Your task to perform on an android device: check storage Image 0: 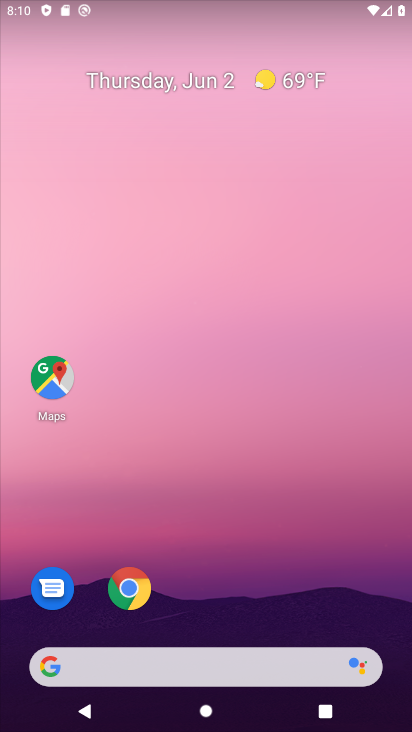
Step 0: drag from (184, 724) to (181, 94)
Your task to perform on an android device: check storage Image 1: 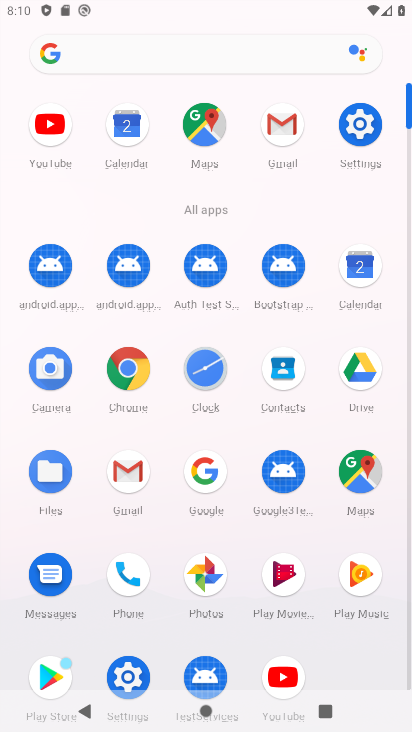
Step 1: click (134, 670)
Your task to perform on an android device: check storage Image 2: 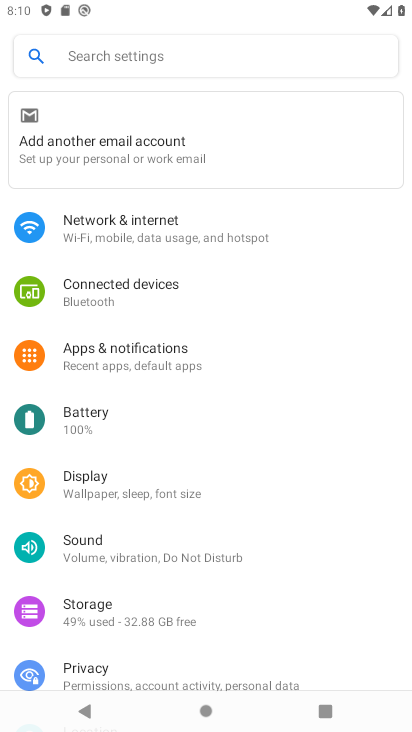
Step 2: click (83, 609)
Your task to perform on an android device: check storage Image 3: 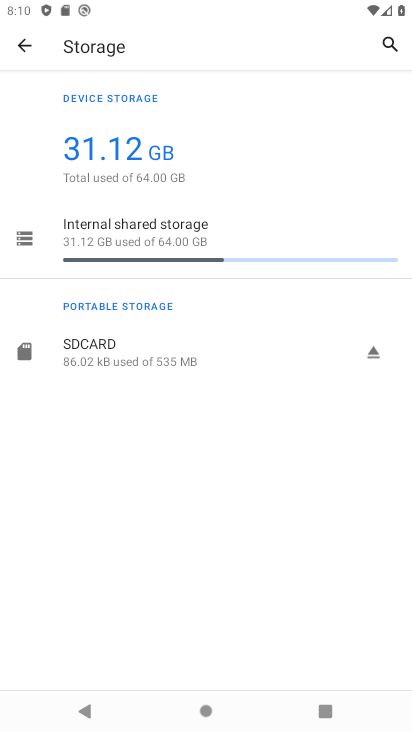
Step 3: task complete